Your task to perform on an android device: read, delete, or share a saved page in the chrome app Image 0: 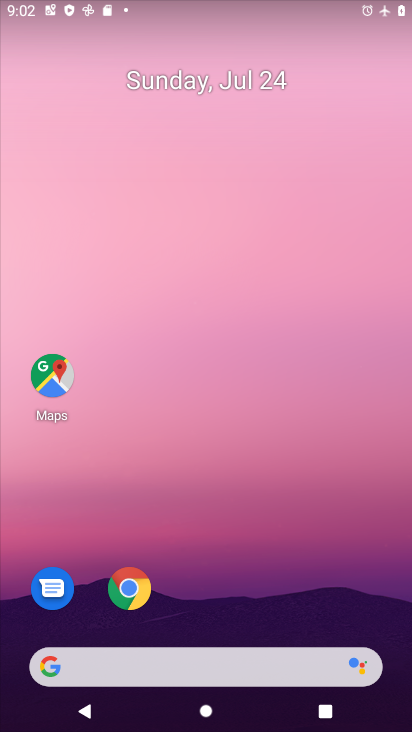
Step 0: drag from (213, 483) to (245, 19)
Your task to perform on an android device: read, delete, or share a saved page in the chrome app Image 1: 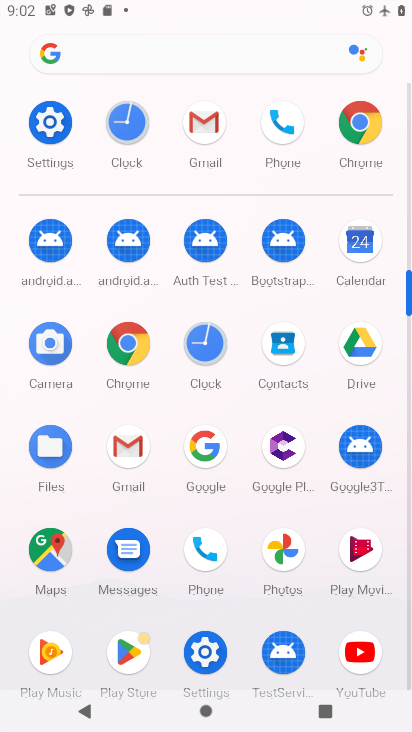
Step 1: click (349, 122)
Your task to perform on an android device: read, delete, or share a saved page in the chrome app Image 2: 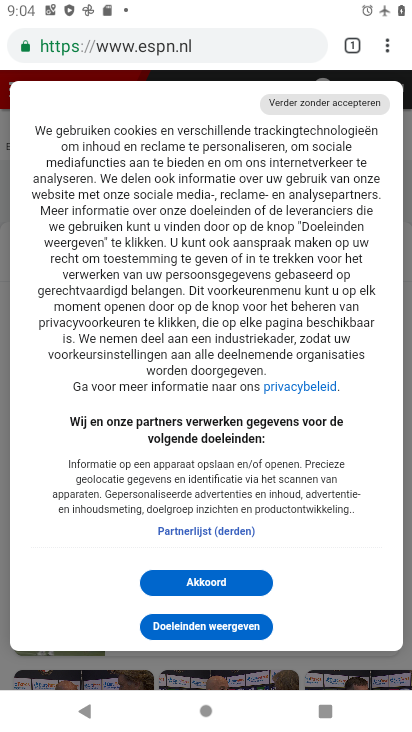
Step 2: task complete